Your task to perform on an android device: Search for flights from Buenos aires to Helsinki Image 0: 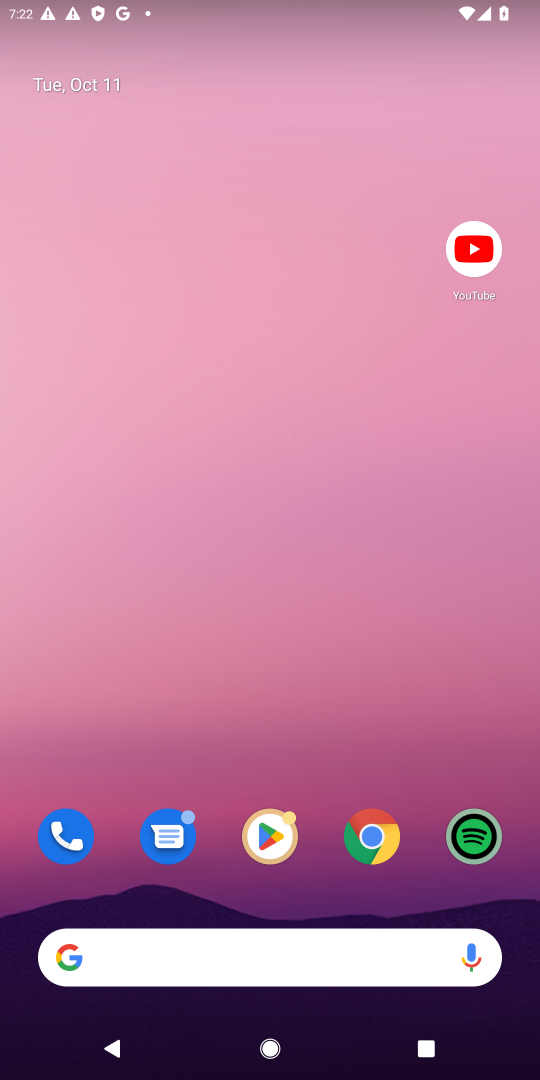
Step 0: click (371, 838)
Your task to perform on an android device: Search for flights from Buenos aires to Helsinki Image 1: 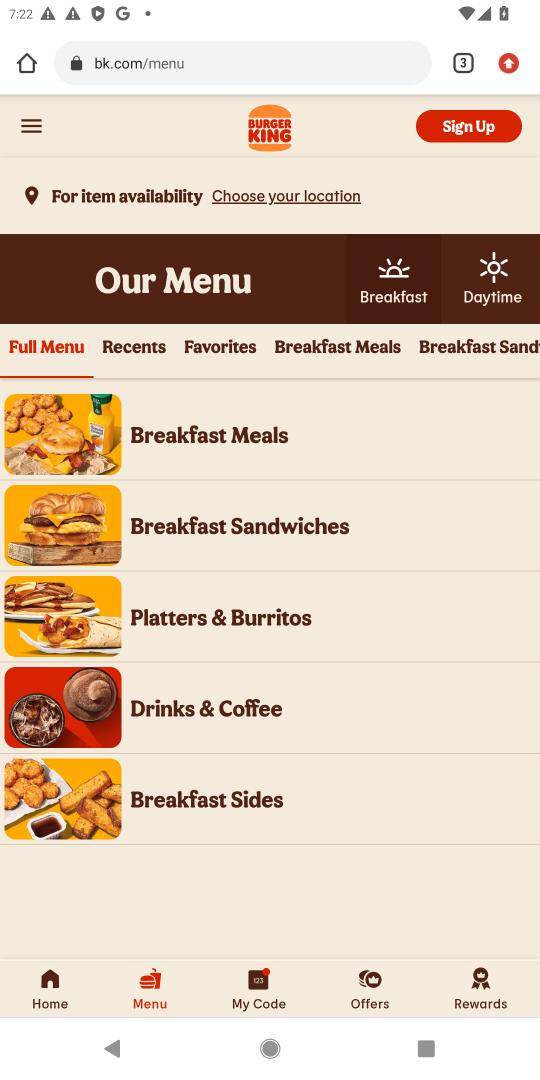
Step 1: click (234, 70)
Your task to perform on an android device: Search for flights from Buenos aires to Helsinki Image 2: 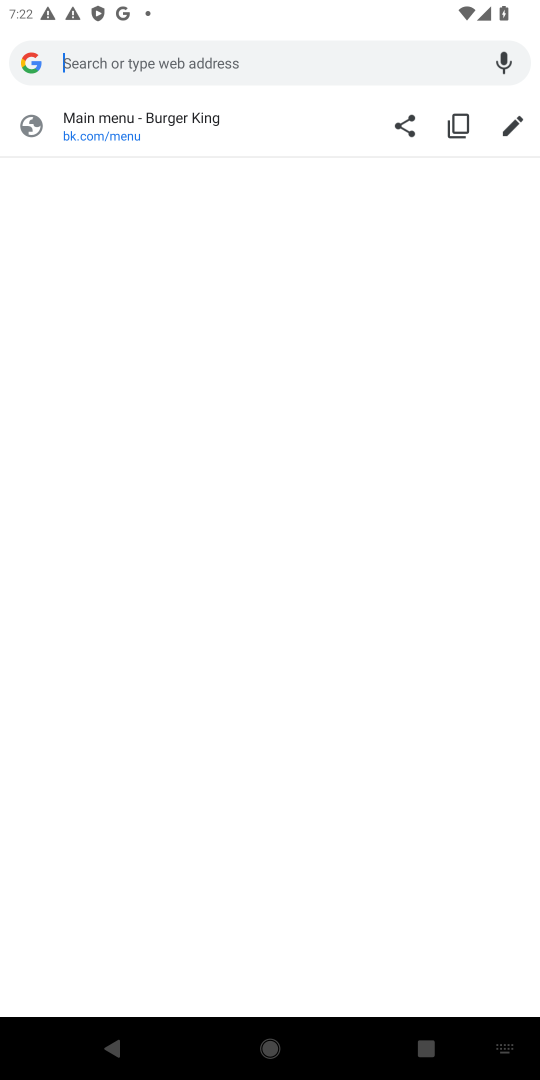
Step 2: type "flights from Buenos aires to Helsinki"
Your task to perform on an android device: Search for flights from Buenos aires to Helsinki Image 3: 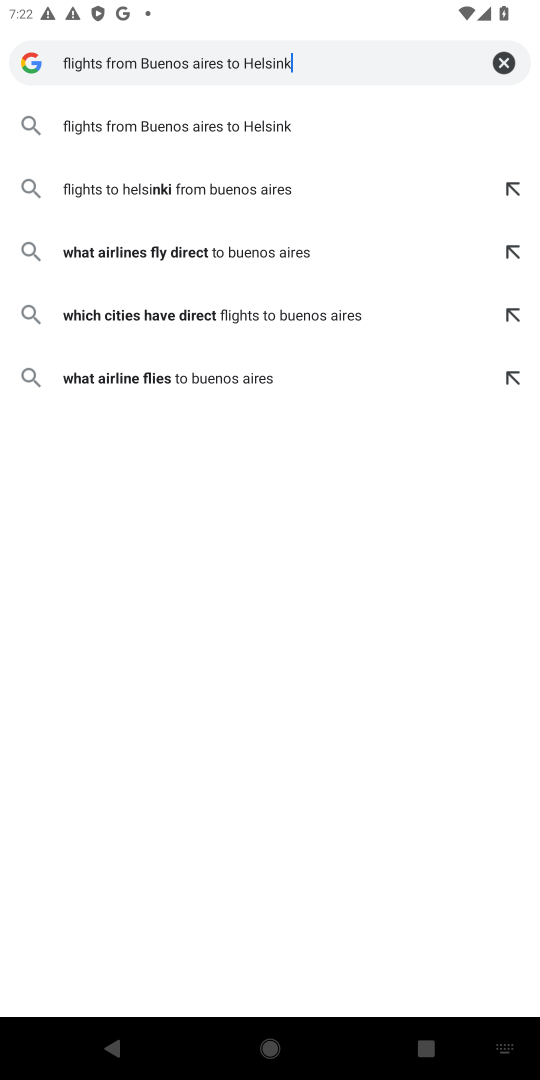
Step 3: press enter
Your task to perform on an android device: Search for flights from Buenos aires to Helsinki Image 4: 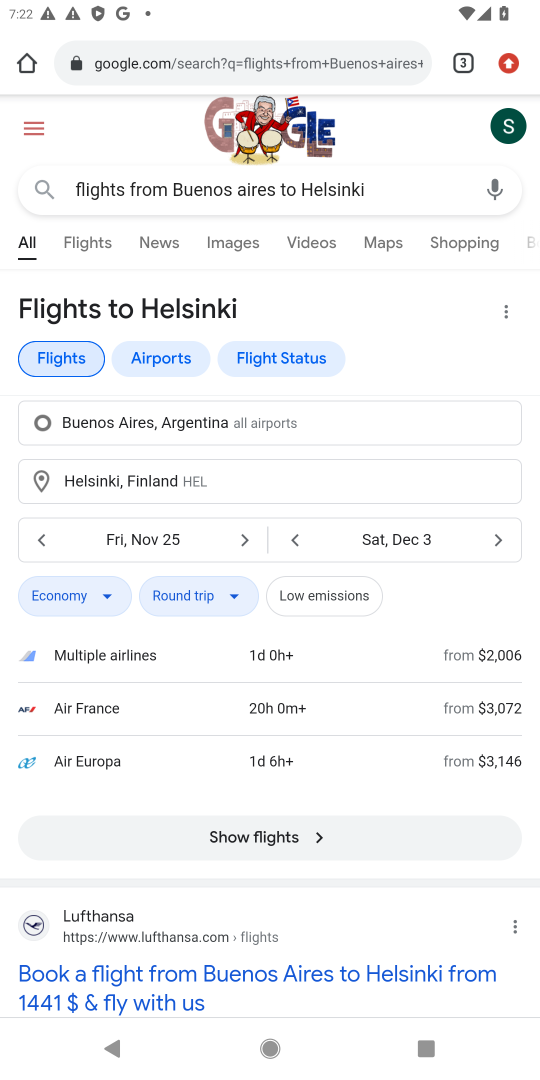
Step 4: click (294, 828)
Your task to perform on an android device: Search for flights from Buenos aires to Helsinki Image 5: 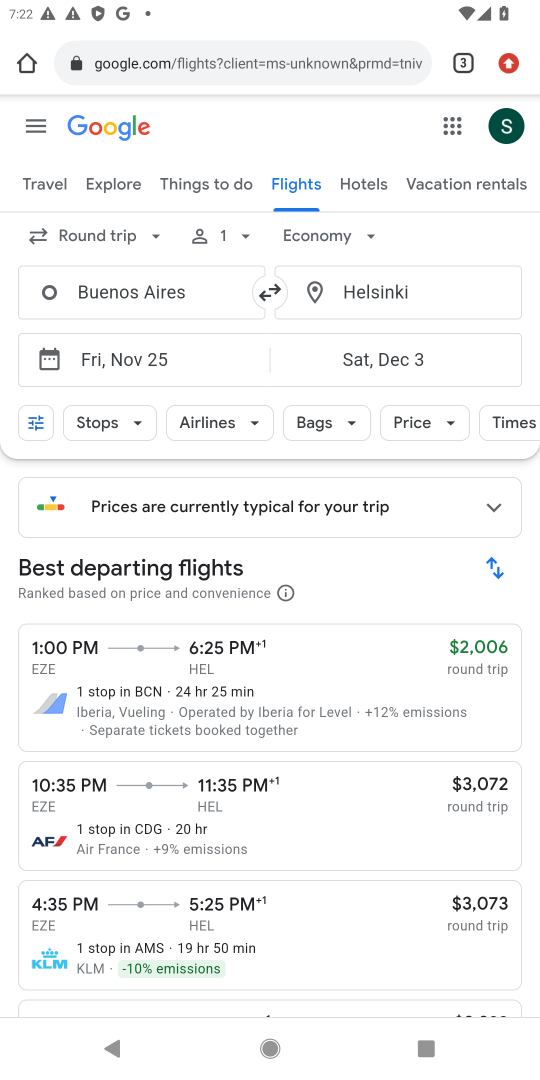
Step 5: task complete